Your task to perform on an android device: turn off improve location accuracy Image 0: 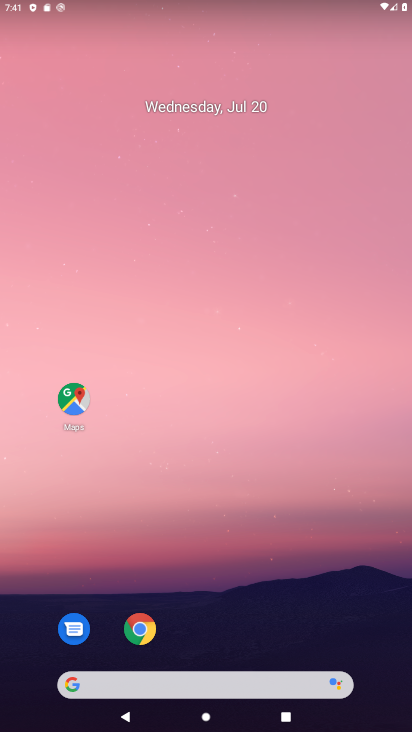
Step 0: click (183, 58)
Your task to perform on an android device: turn off improve location accuracy Image 1: 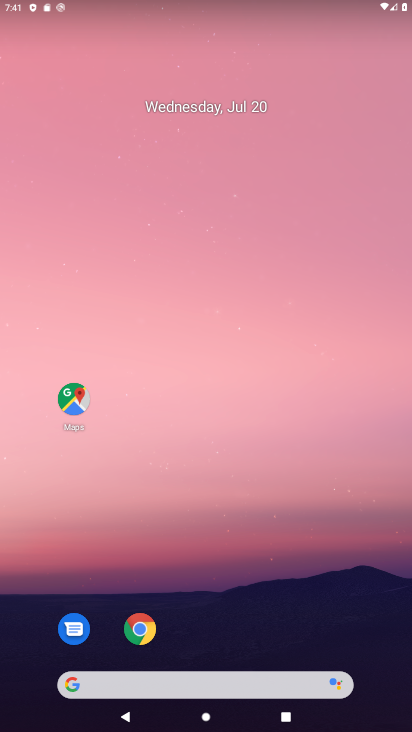
Step 1: click (162, 23)
Your task to perform on an android device: turn off improve location accuracy Image 2: 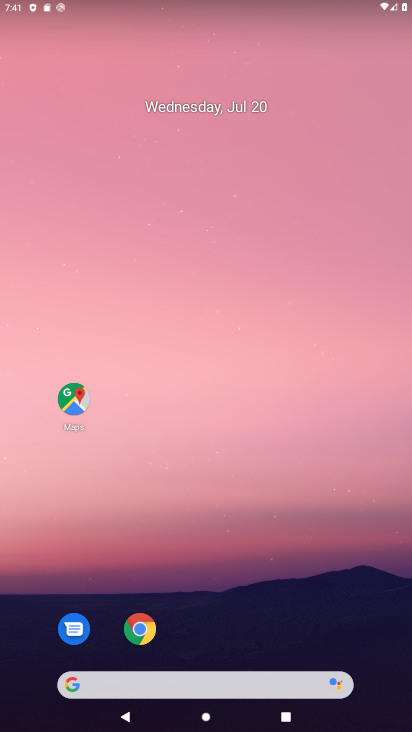
Step 2: drag from (276, 492) to (138, 8)
Your task to perform on an android device: turn off improve location accuracy Image 3: 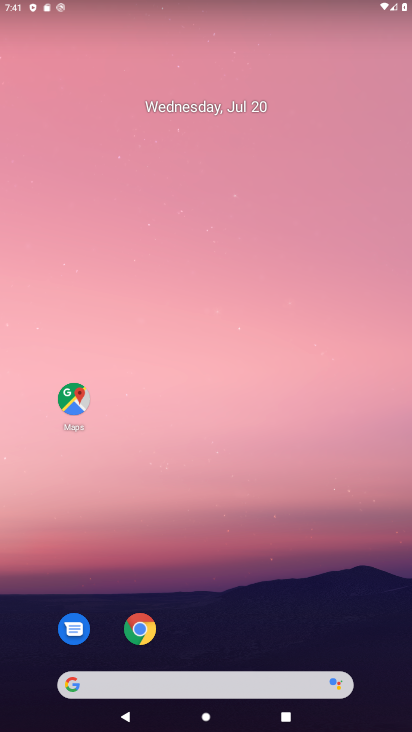
Step 3: drag from (186, 73) to (179, 35)
Your task to perform on an android device: turn off improve location accuracy Image 4: 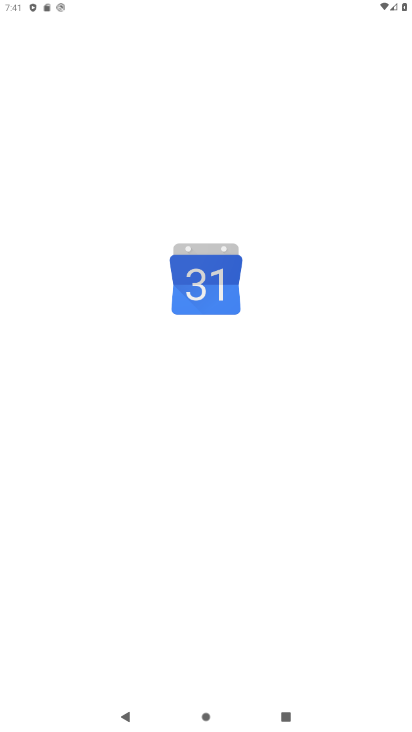
Step 4: drag from (274, 430) to (186, 38)
Your task to perform on an android device: turn off improve location accuracy Image 5: 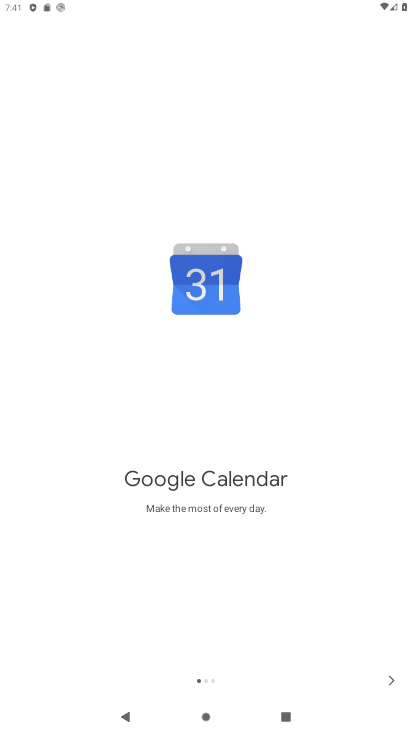
Step 5: drag from (207, 393) to (194, 153)
Your task to perform on an android device: turn off improve location accuracy Image 6: 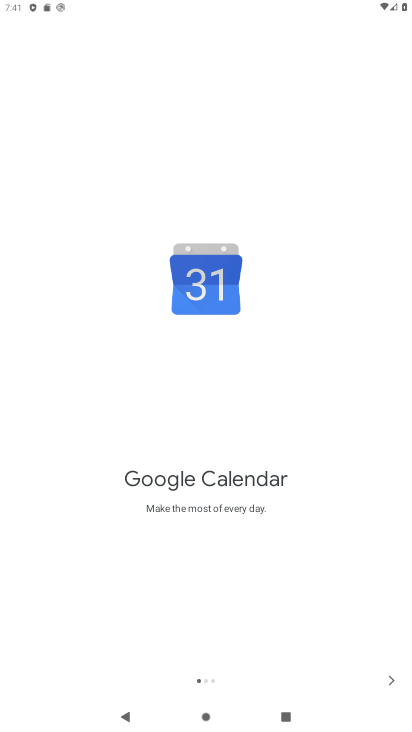
Step 6: click (392, 679)
Your task to perform on an android device: turn off improve location accuracy Image 7: 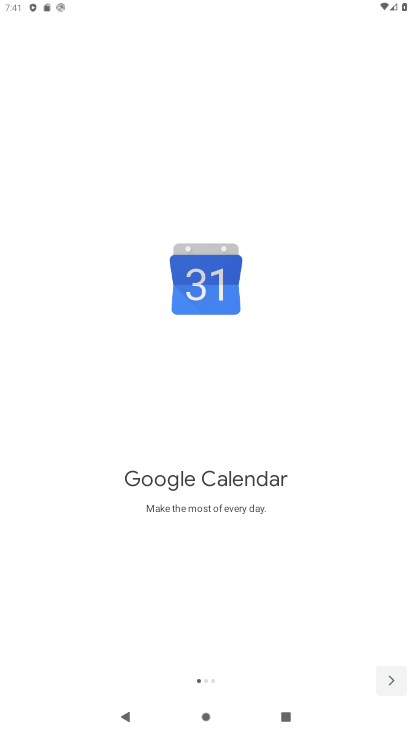
Step 7: click (394, 679)
Your task to perform on an android device: turn off improve location accuracy Image 8: 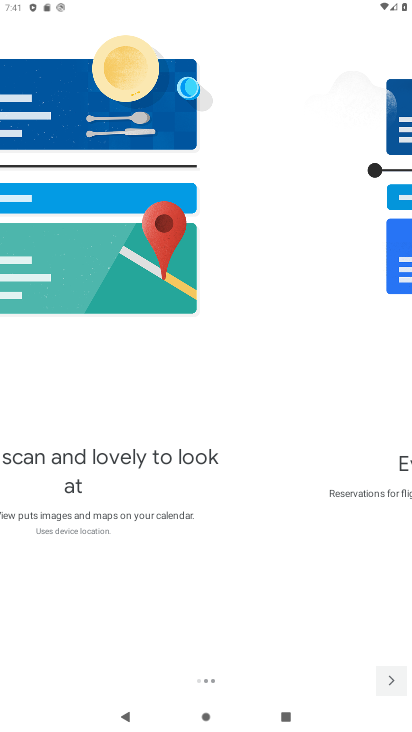
Step 8: click (395, 680)
Your task to perform on an android device: turn off improve location accuracy Image 9: 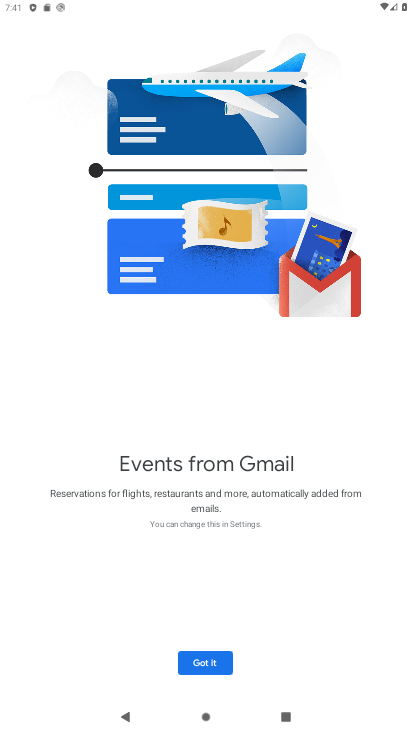
Step 9: click (393, 681)
Your task to perform on an android device: turn off improve location accuracy Image 10: 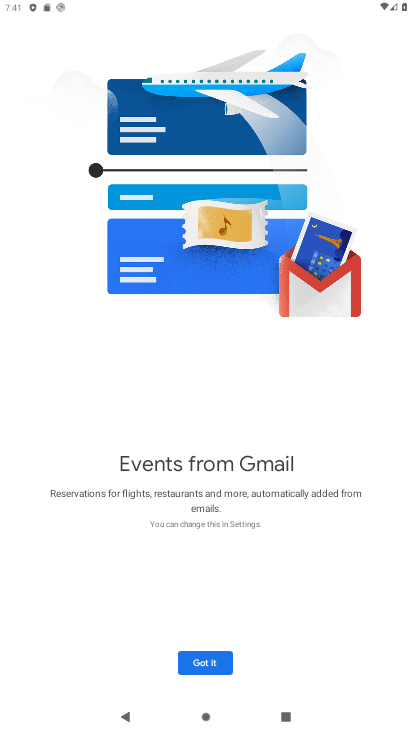
Step 10: click (391, 684)
Your task to perform on an android device: turn off improve location accuracy Image 11: 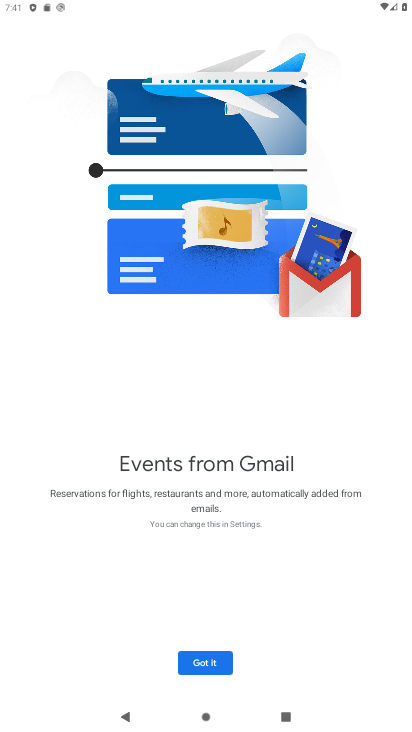
Step 11: click (208, 658)
Your task to perform on an android device: turn off improve location accuracy Image 12: 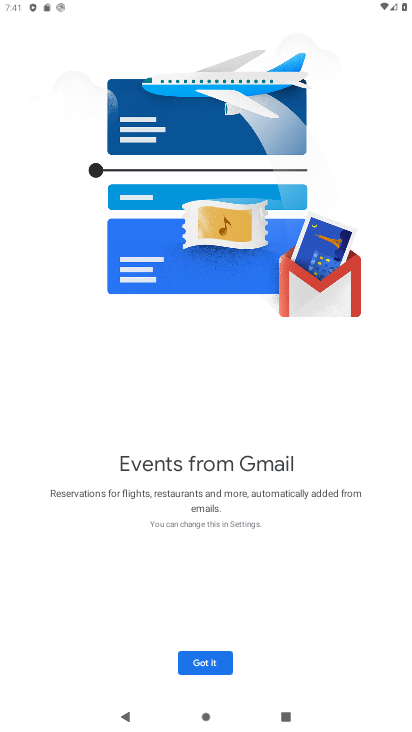
Step 12: click (208, 658)
Your task to perform on an android device: turn off improve location accuracy Image 13: 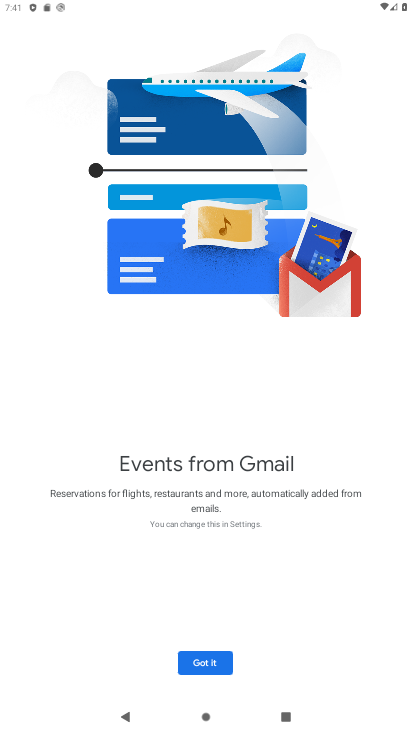
Step 13: click (207, 658)
Your task to perform on an android device: turn off improve location accuracy Image 14: 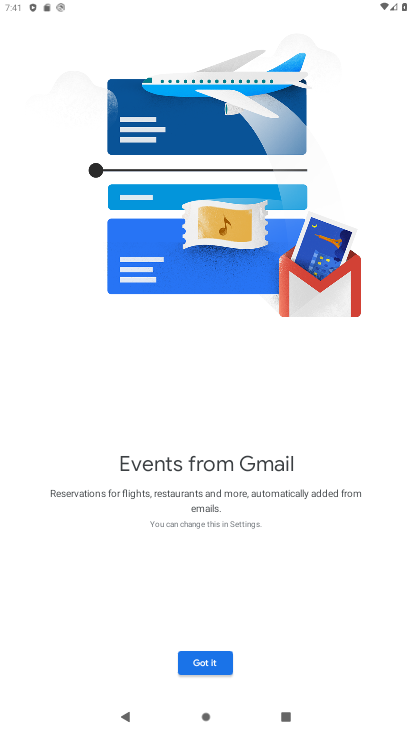
Step 14: click (207, 658)
Your task to perform on an android device: turn off improve location accuracy Image 15: 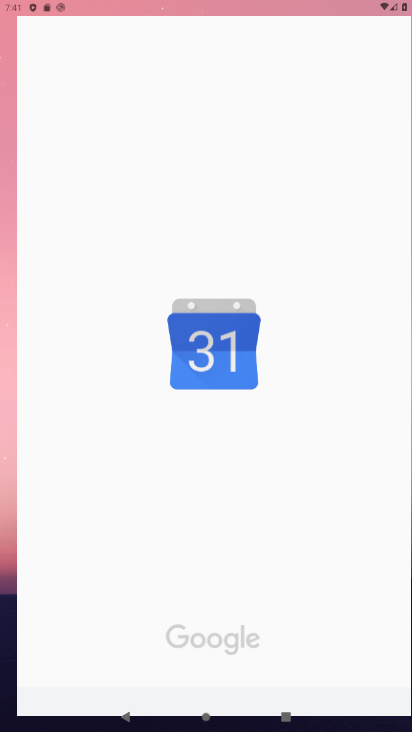
Step 15: click (213, 658)
Your task to perform on an android device: turn off improve location accuracy Image 16: 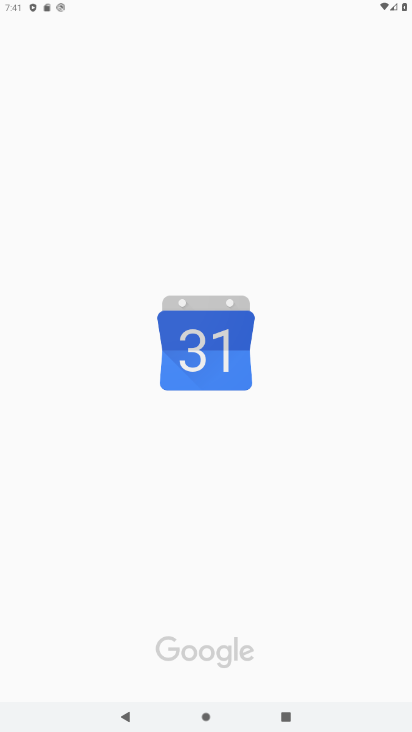
Step 16: click (216, 674)
Your task to perform on an android device: turn off improve location accuracy Image 17: 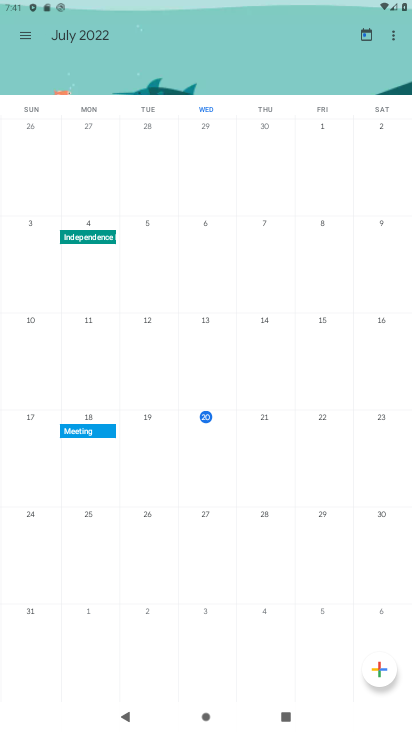
Step 17: press back button
Your task to perform on an android device: turn off improve location accuracy Image 18: 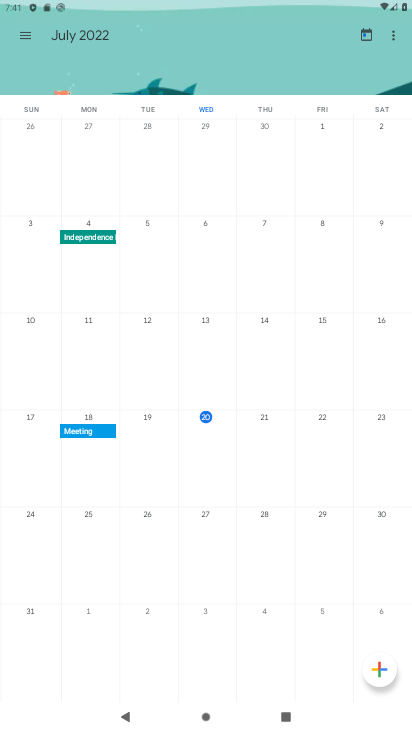
Step 18: press back button
Your task to perform on an android device: turn off improve location accuracy Image 19: 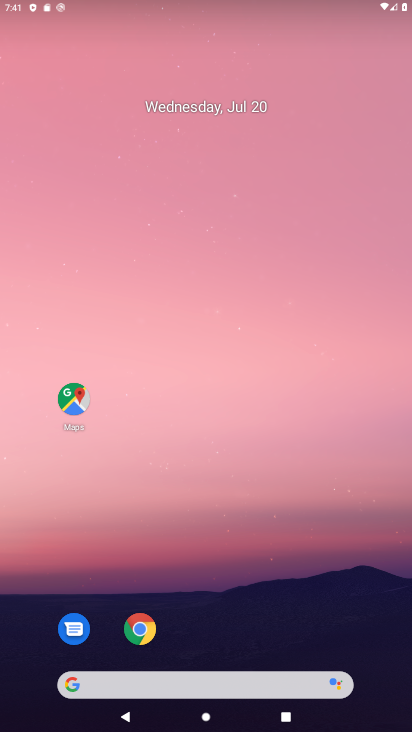
Step 19: press back button
Your task to perform on an android device: turn off improve location accuracy Image 20: 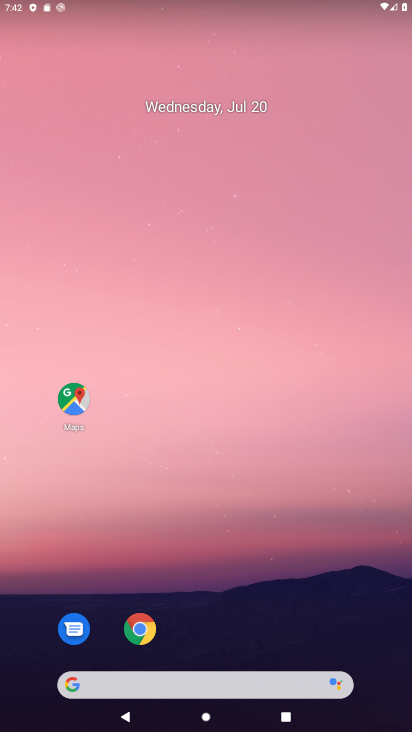
Step 20: drag from (128, 237) to (111, 8)
Your task to perform on an android device: turn off improve location accuracy Image 21: 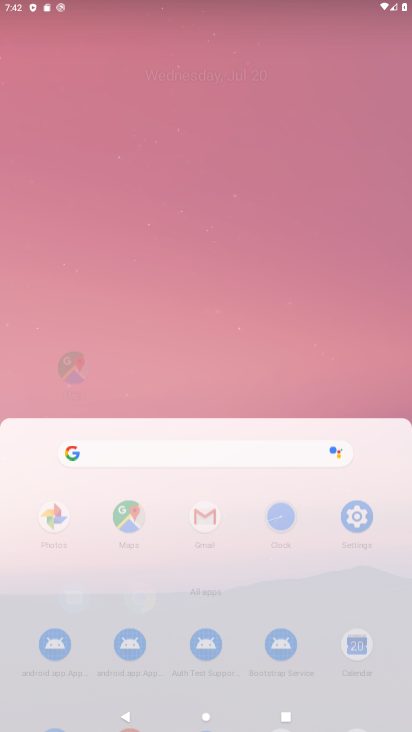
Step 21: drag from (184, 432) to (186, 67)
Your task to perform on an android device: turn off improve location accuracy Image 22: 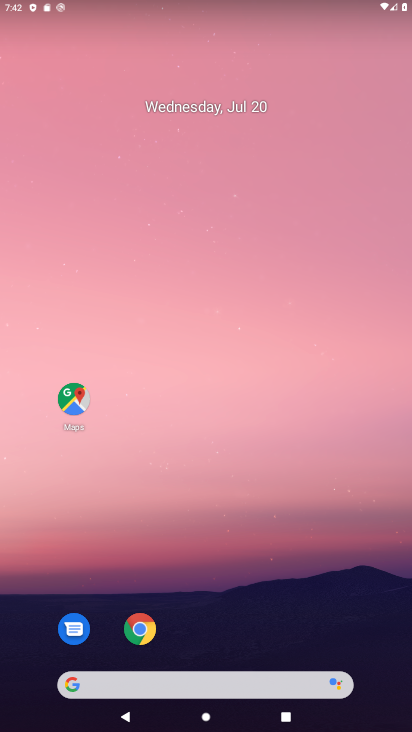
Step 22: drag from (240, 618) to (192, 84)
Your task to perform on an android device: turn off improve location accuracy Image 23: 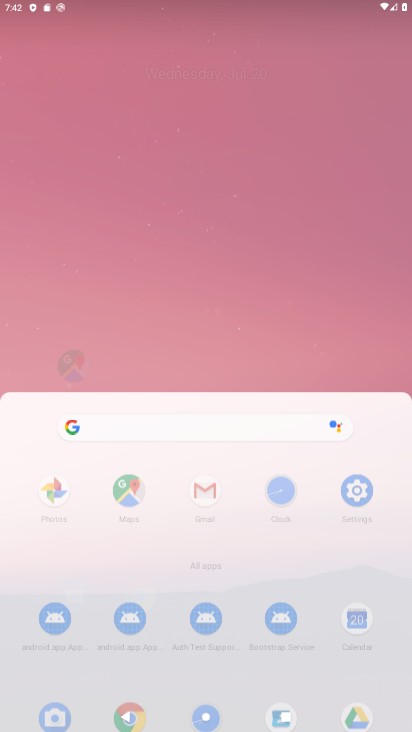
Step 23: drag from (175, 515) to (232, 65)
Your task to perform on an android device: turn off improve location accuracy Image 24: 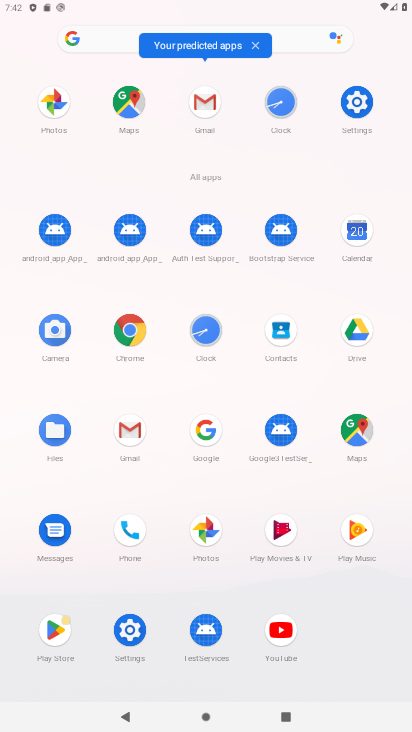
Step 24: click (349, 98)
Your task to perform on an android device: turn off improve location accuracy Image 25: 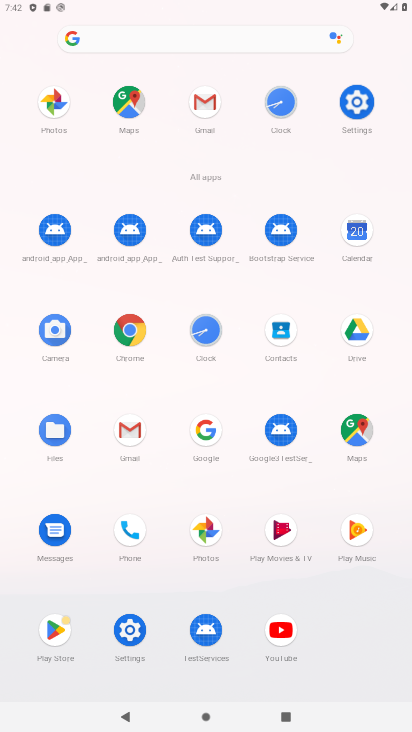
Step 25: click (356, 99)
Your task to perform on an android device: turn off improve location accuracy Image 26: 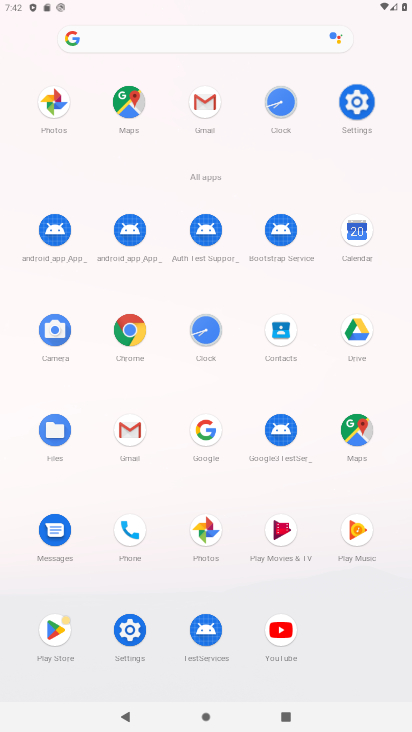
Step 26: click (358, 106)
Your task to perform on an android device: turn off improve location accuracy Image 27: 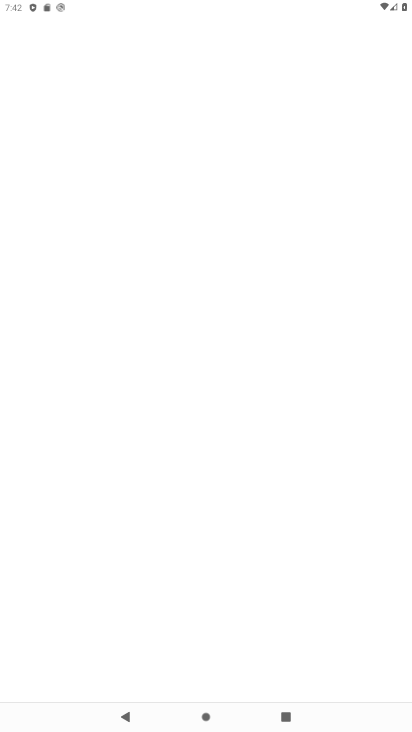
Step 27: click (361, 110)
Your task to perform on an android device: turn off improve location accuracy Image 28: 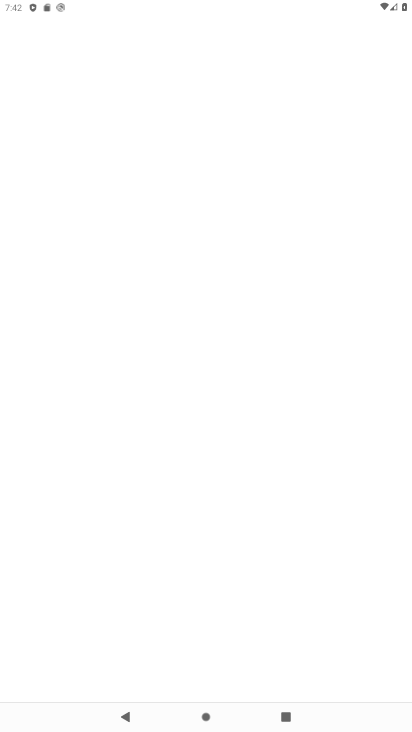
Step 28: click (358, 109)
Your task to perform on an android device: turn off improve location accuracy Image 29: 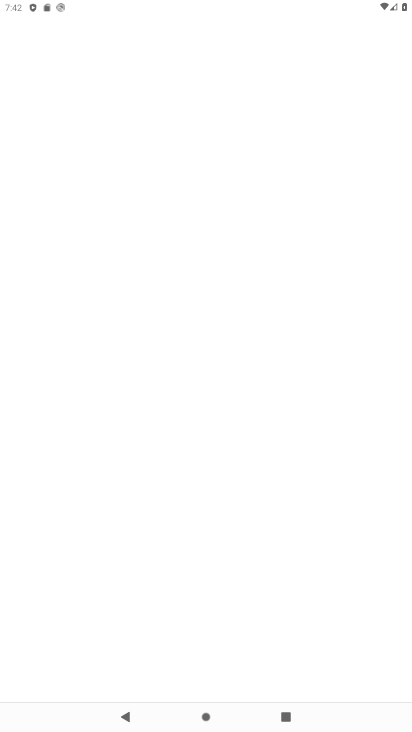
Step 29: click (352, 109)
Your task to perform on an android device: turn off improve location accuracy Image 30: 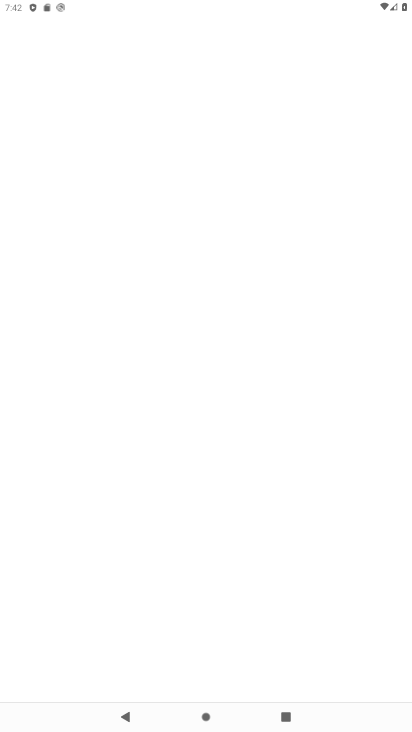
Step 30: click (352, 114)
Your task to perform on an android device: turn off improve location accuracy Image 31: 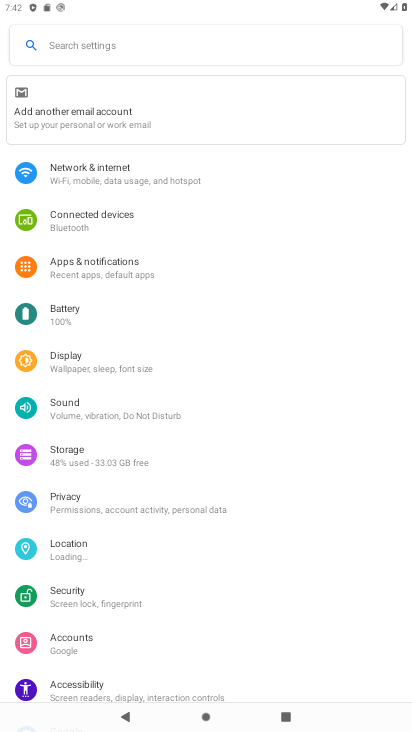
Step 31: click (63, 549)
Your task to perform on an android device: turn off improve location accuracy Image 32: 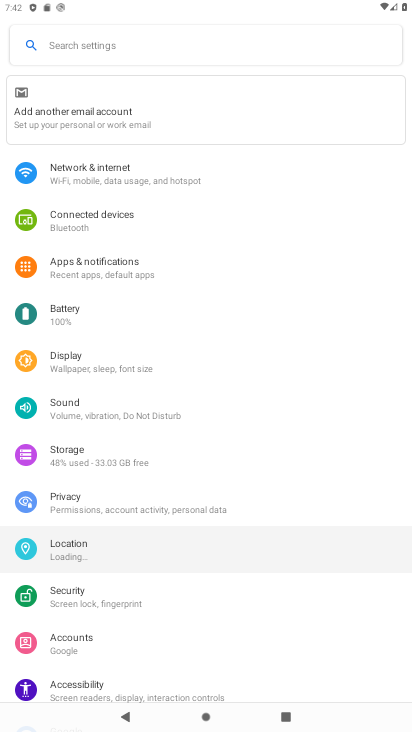
Step 32: click (63, 549)
Your task to perform on an android device: turn off improve location accuracy Image 33: 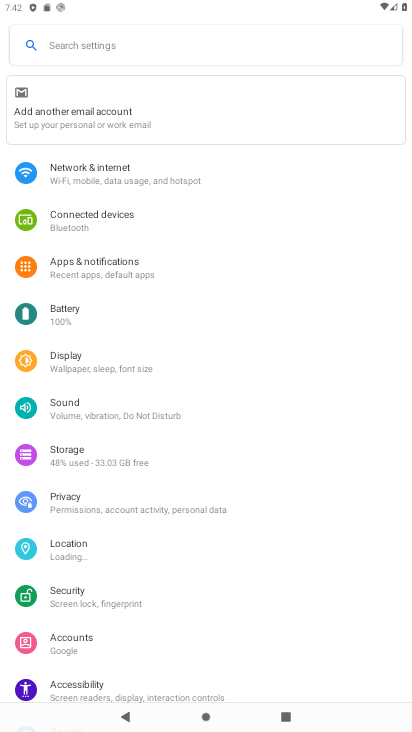
Step 33: click (67, 550)
Your task to perform on an android device: turn off improve location accuracy Image 34: 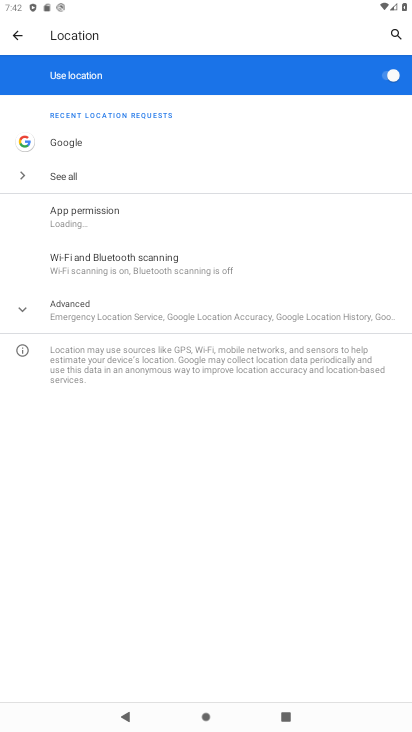
Step 34: click (69, 317)
Your task to perform on an android device: turn off improve location accuracy Image 35: 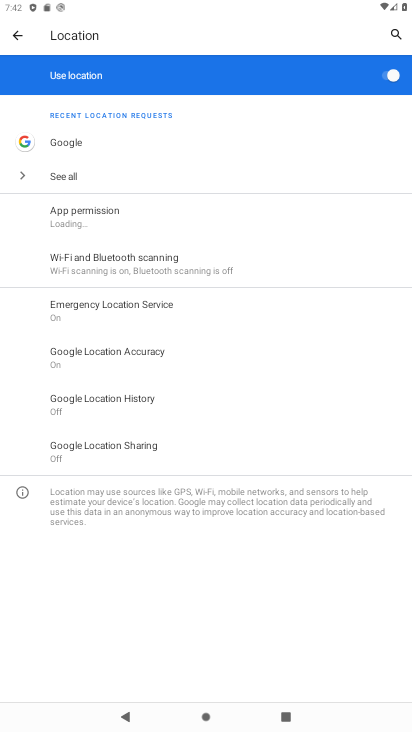
Step 35: click (85, 350)
Your task to perform on an android device: turn off improve location accuracy Image 36: 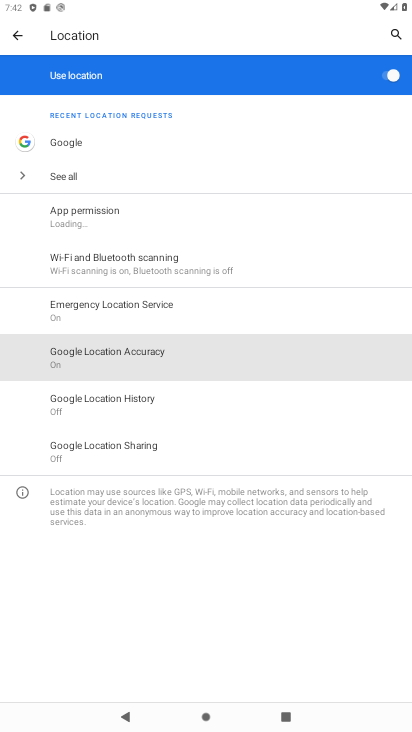
Step 36: click (84, 351)
Your task to perform on an android device: turn off improve location accuracy Image 37: 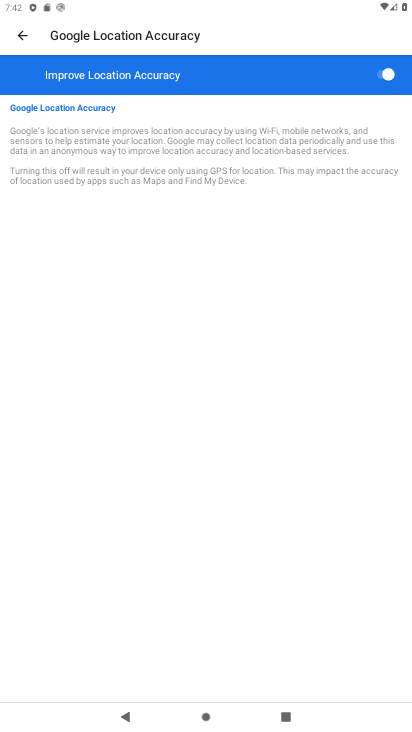
Step 37: click (383, 72)
Your task to perform on an android device: turn off improve location accuracy Image 38: 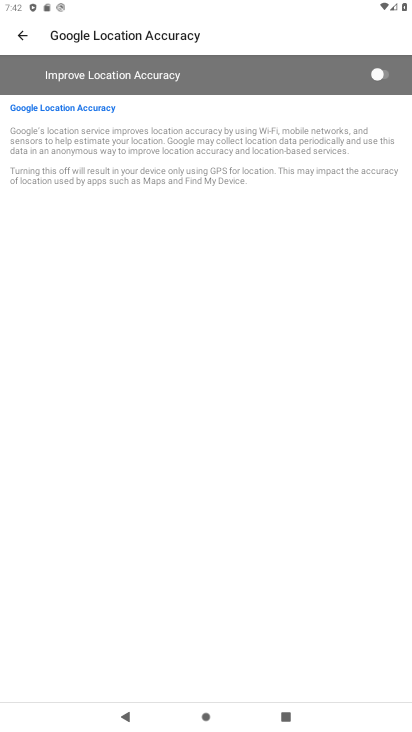
Step 38: task complete